Your task to perform on an android device: turn off javascript in the chrome app Image 0: 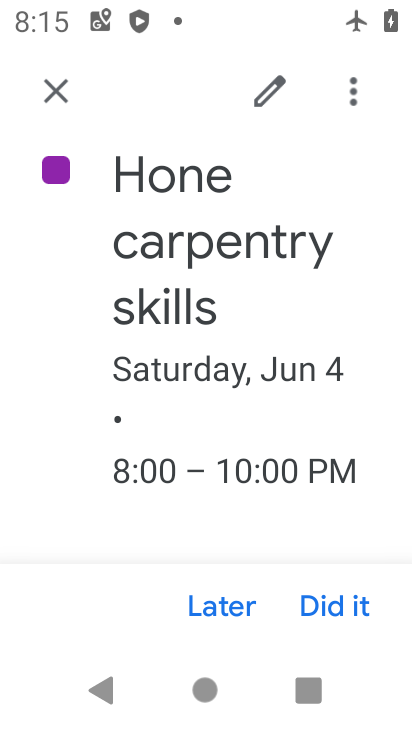
Step 0: press home button
Your task to perform on an android device: turn off javascript in the chrome app Image 1: 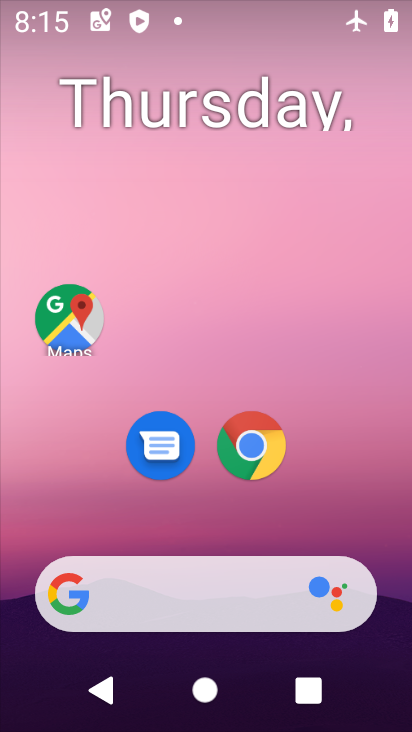
Step 1: drag from (392, 617) to (349, 120)
Your task to perform on an android device: turn off javascript in the chrome app Image 2: 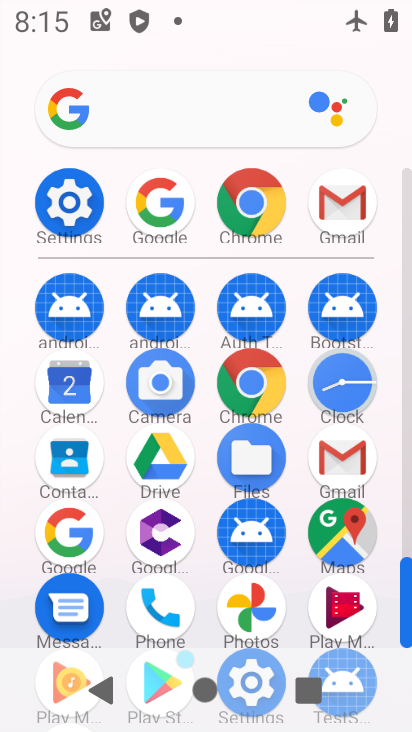
Step 2: click (262, 368)
Your task to perform on an android device: turn off javascript in the chrome app Image 3: 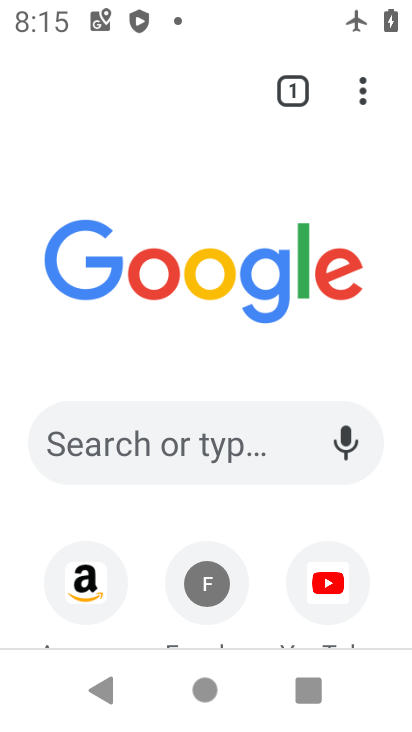
Step 3: click (370, 84)
Your task to perform on an android device: turn off javascript in the chrome app Image 4: 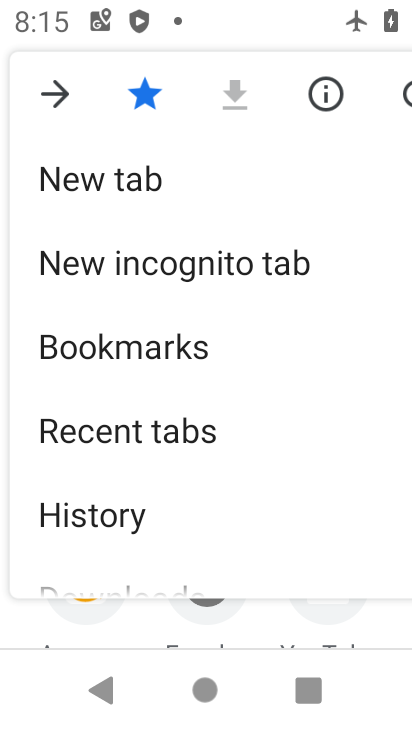
Step 4: drag from (154, 535) to (199, 183)
Your task to perform on an android device: turn off javascript in the chrome app Image 5: 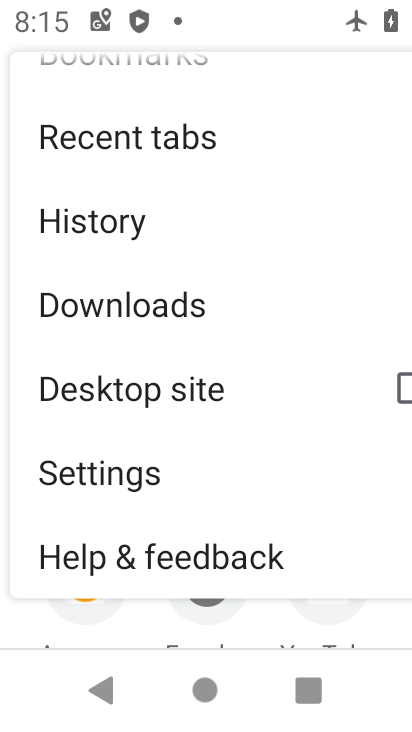
Step 5: click (178, 466)
Your task to perform on an android device: turn off javascript in the chrome app Image 6: 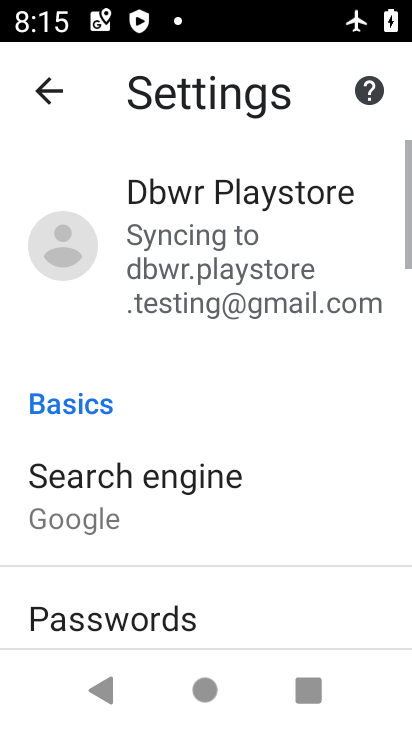
Step 6: drag from (227, 581) to (185, 142)
Your task to perform on an android device: turn off javascript in the chrome app Image 7: 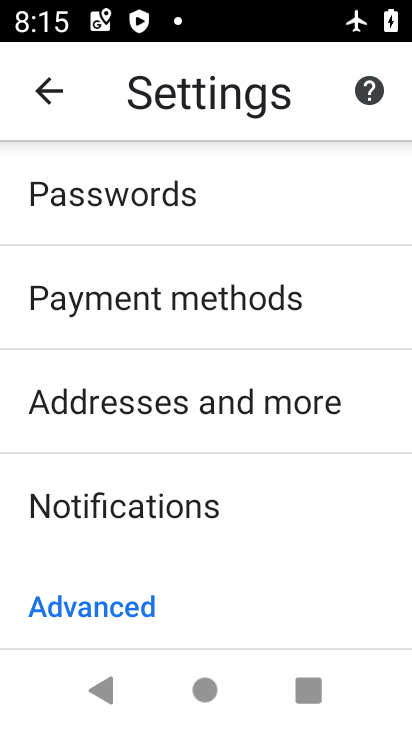
Step 7: click (192, 580)
Your task to perform on an android device: turn off javascript in the chrome app Image 8: 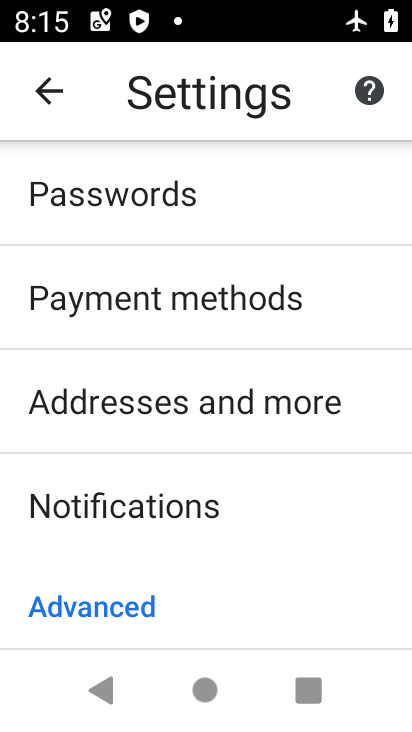
Step 8: drag from (218, 328) to (214, 151)
Your task to perform on an android device: turn off javascript in the chrome app Image 9: 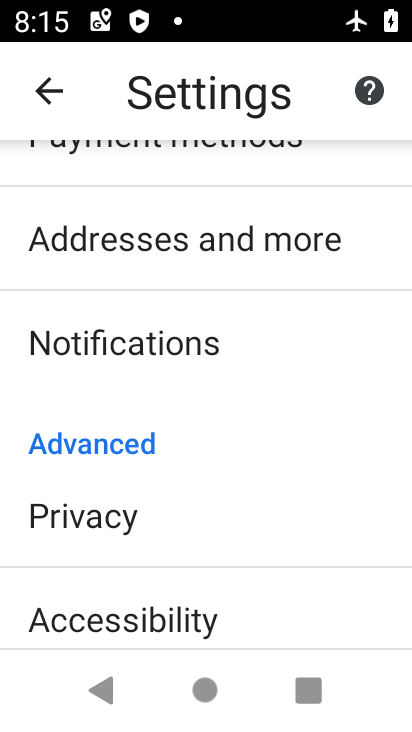
Step 9: drag from (215, 578) to (266, 215)
Your task to perform on an android device: turn off javascript in the chrome app Image 10: 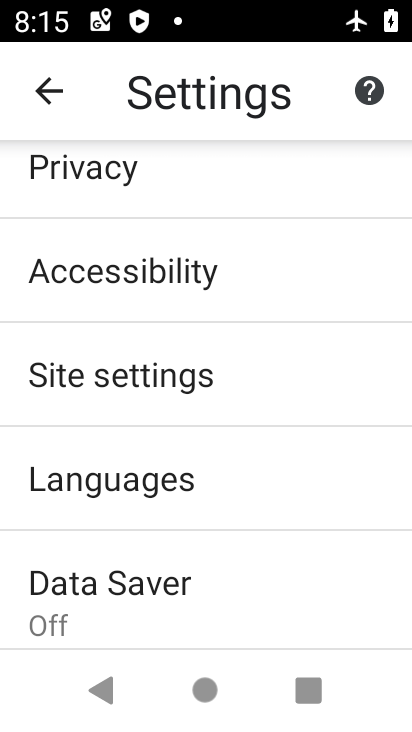
Step 10: click (167, 386)
Your task to perform on an android device: turn off javascript in the chrome app Image 11: 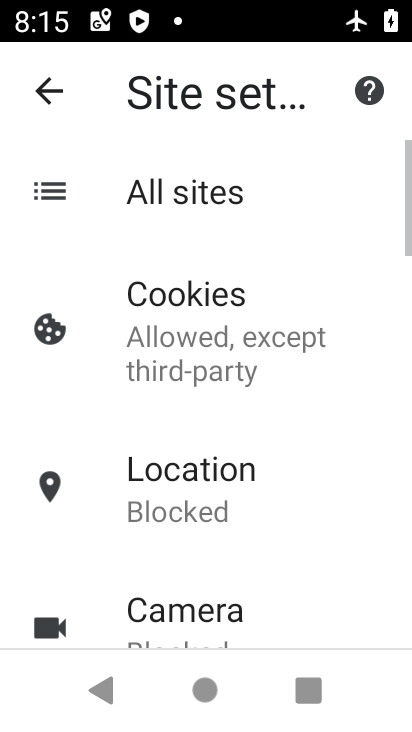
Step 11: drag from (245, 586) to (203, 167)
Your task to perform on an android device: turn off javascript in the chrome app Image 12: 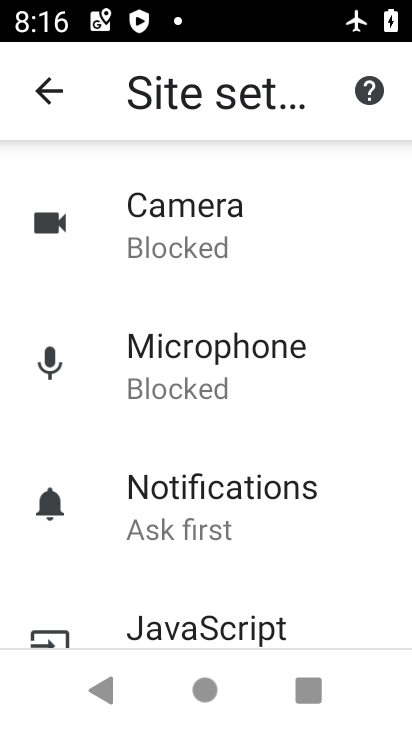
Step 12: click (221, 614)
Your task to perform on an android device: turn off javascript in the chrome app Image 13: 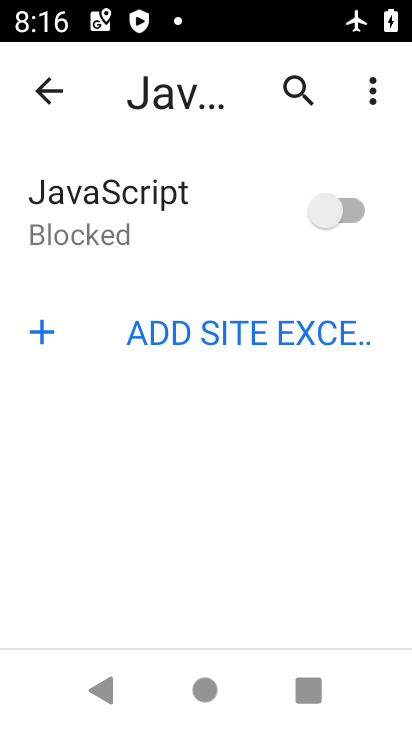
Step 13: task complete